Your task to perform on an android device: set the timer Image 0: 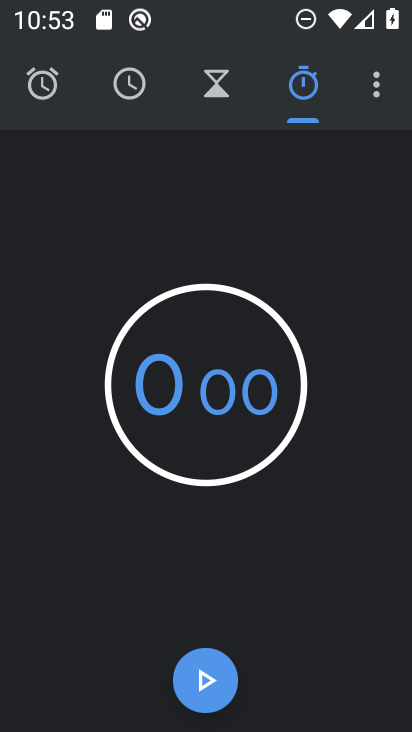
Step 0: click (227, 79)
Your task to perform on an android device: set the timer Image 1: 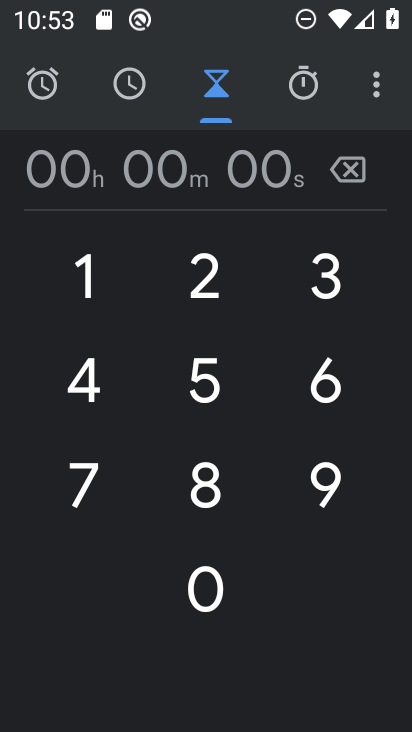
Step 1: click (337, 289)
Your task to perform on an android device: set the timer Image 2: 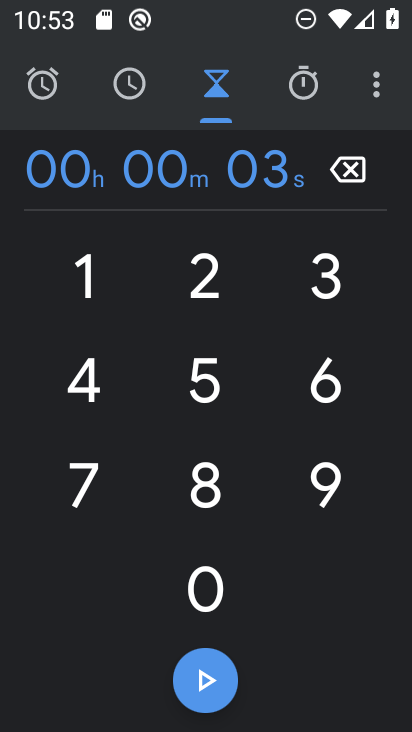
Step 2: click (207, 668)
Your task to perform on an android device: set the timer Image 3: 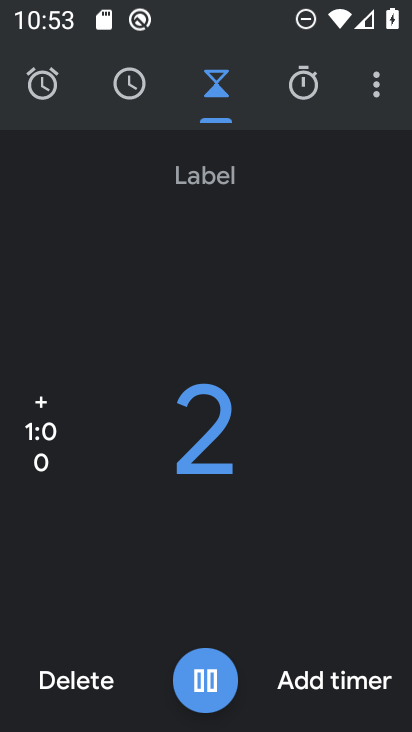
Step 3: task complete